Your task to perform on an android device: Open Chrome and go to settings Image 0: 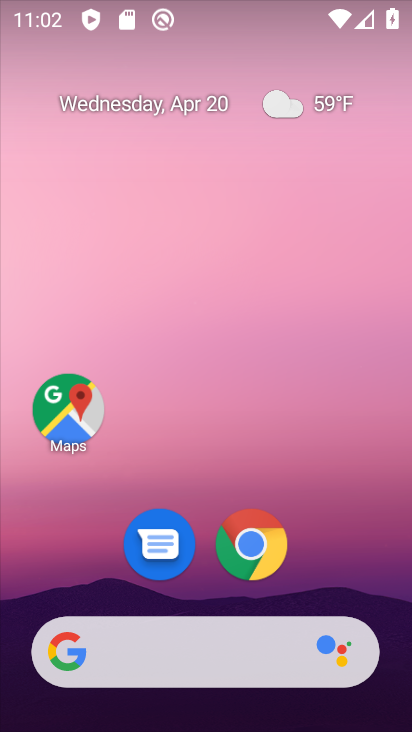
Step 0: click (254, 541)
Your task to perform on an android device: Open Chrome and go to settings Image 1: 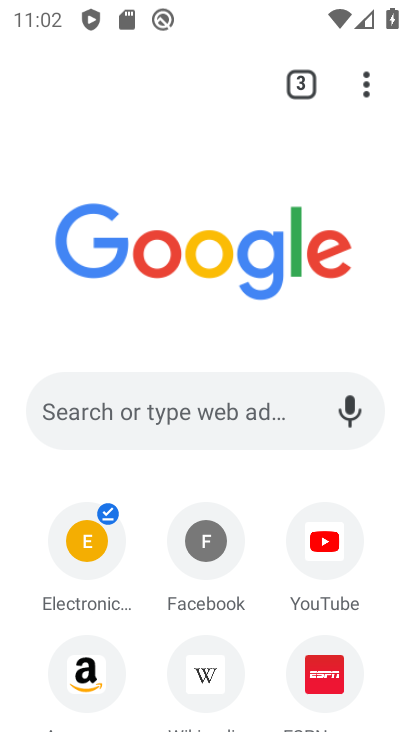
Step 1: click (366, 78)
Your task to perform on an android device: Open Chrome and go to settings Image 2: 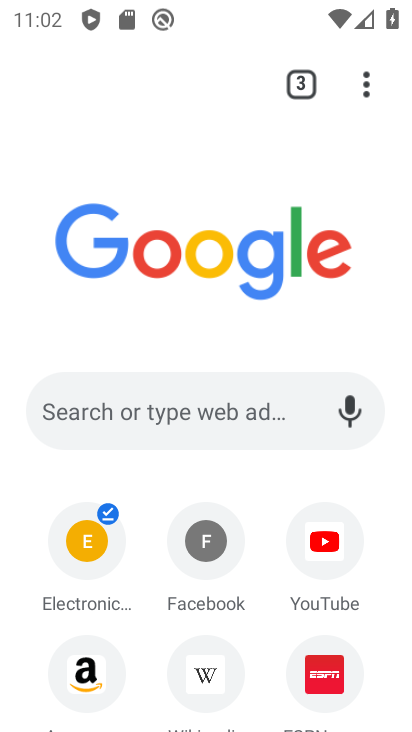
Step 2: click (365, 100)
Your task to perform on an android device: Open Chrome and go to settings Image 3: 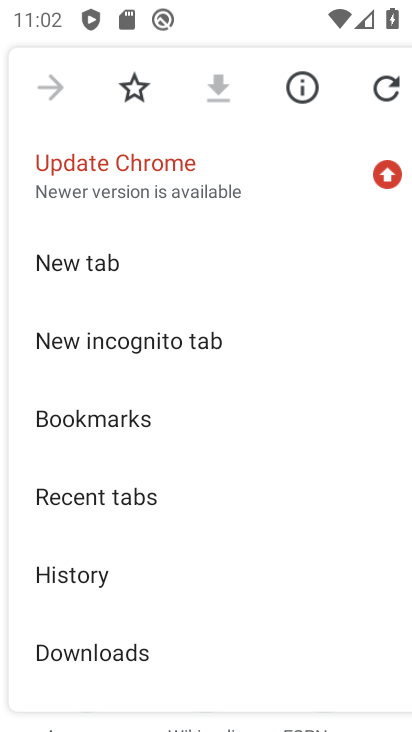
Step 3: drag from (229, 428) to (239, 197)
Your task to perform on an android device: Open Chrome and go to settings Image 4: 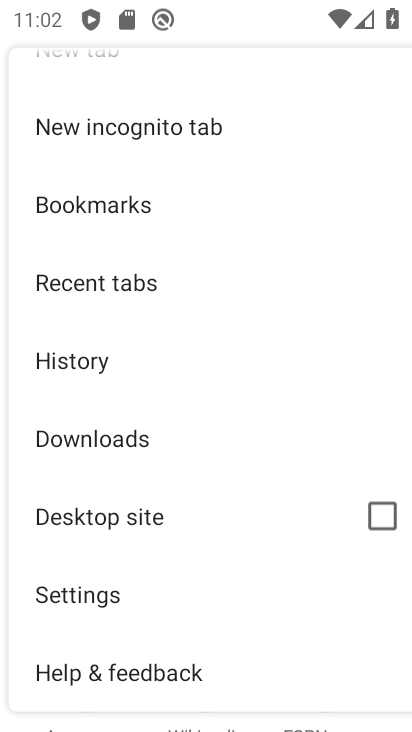
Step 4: click (145, 582)
Your task to perform on an android device: Open Chrome and go to settings Image 5: 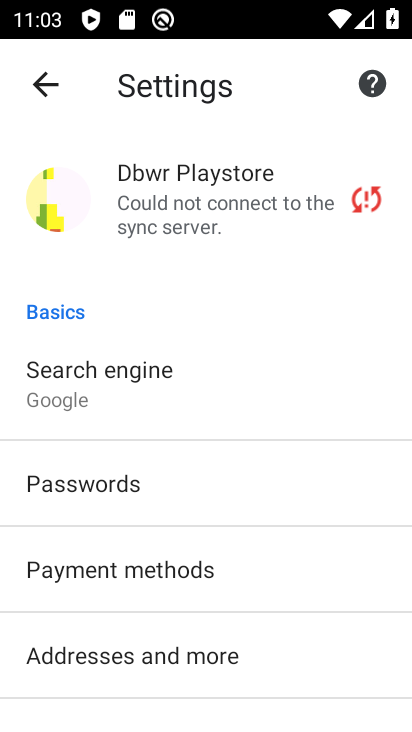
Step 5: task complete